Your task to perform on an android device: show emergency info Image 0: 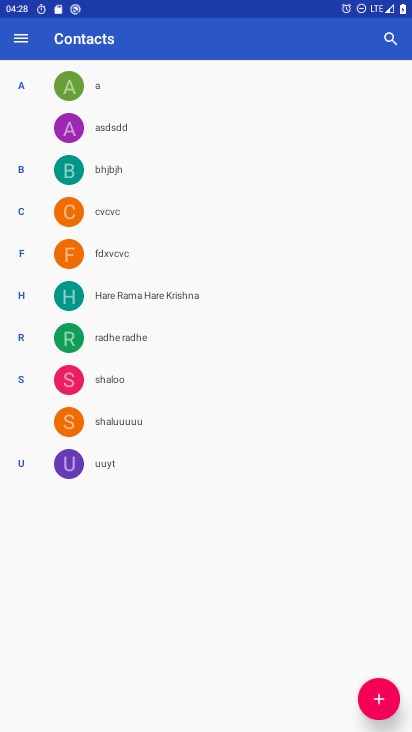
Step 0: press home button
Your task to perform on an android device: show emergency info Image 1: 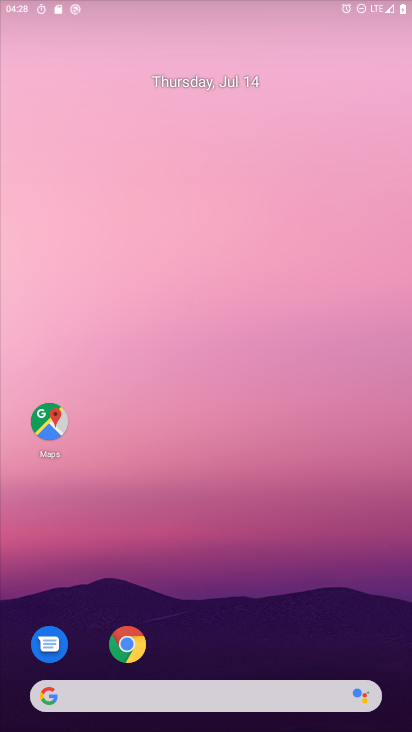
Step 1: drag from (346, 595) to (310, 39)
Your task to perform on an android device: show emergency info Image 2: 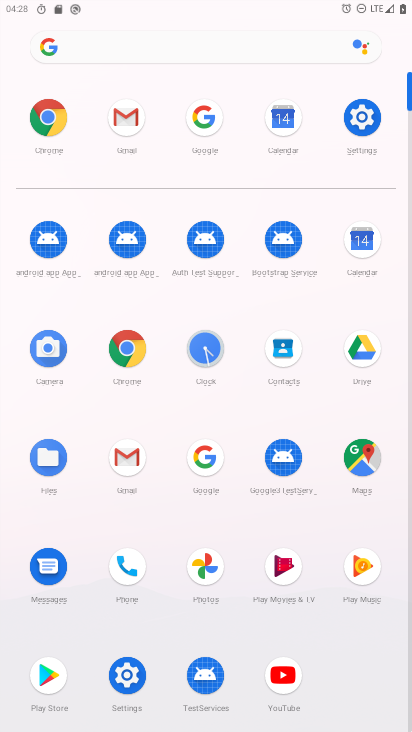
Step 2: click (370, 113)
Your task to perform on an android device: show emergency info Image 3: 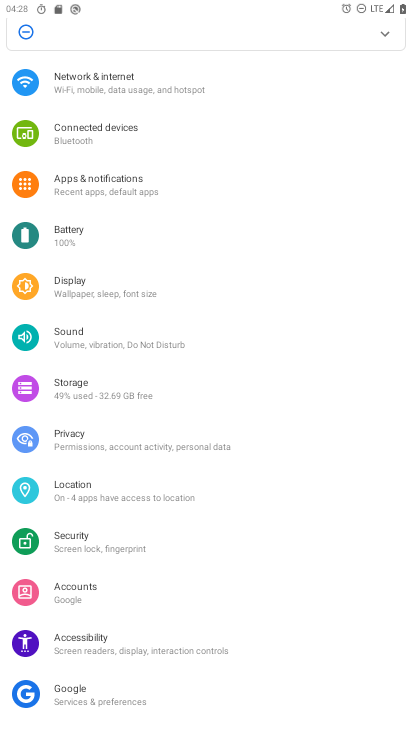
Step 3: drag from (187, 573) to (242, 110)
Your task to perform on an android device: show emergency info Image 4: 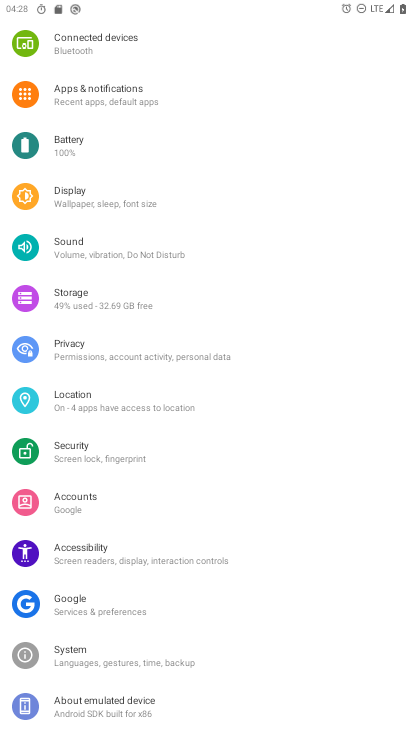
Step 4: click (134, 711)
Your task to perform on an android device: show emergency info Image 5: 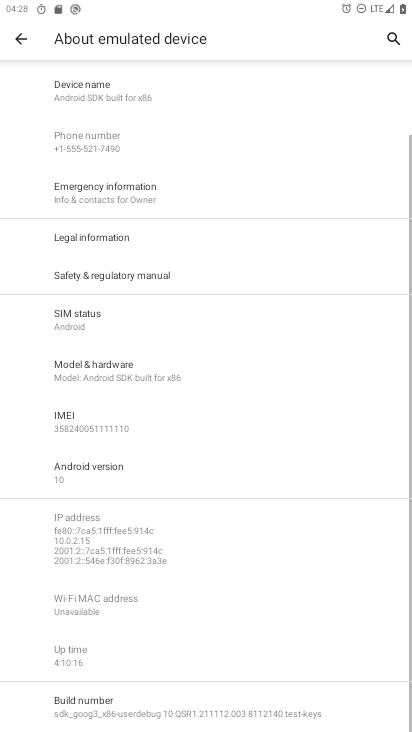
Step 5: click (140, 207)
Your task to perform on an android device: show emergency info Image 6: 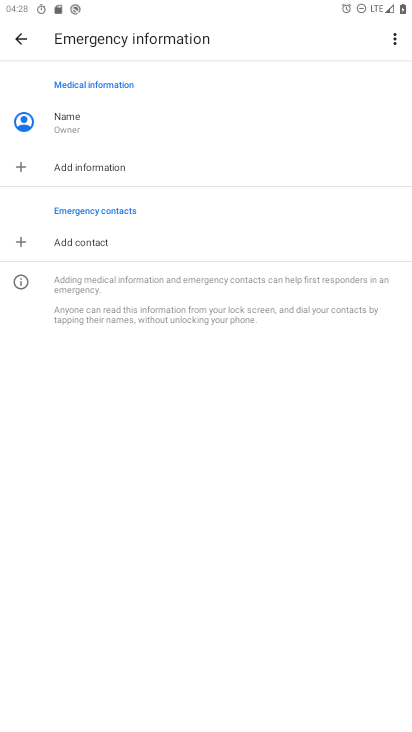
Step 6: task complete